Your task to perform on an android device: toggle notifications settings in the gmail app Image 0: 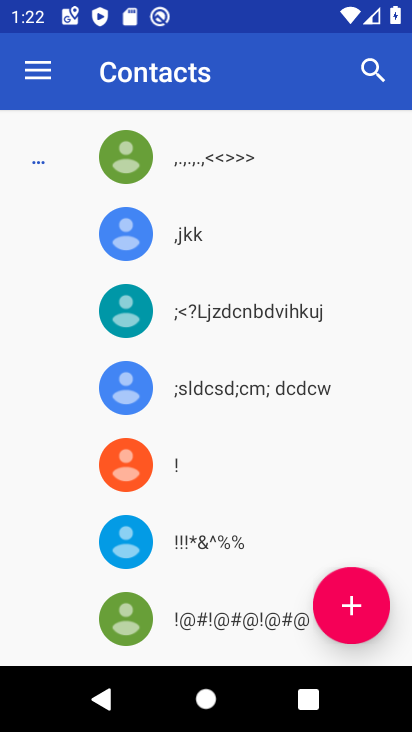
Step 0: press back button
Your task to perform on an android device: toggle notifications settings in the gmail app Image 1: 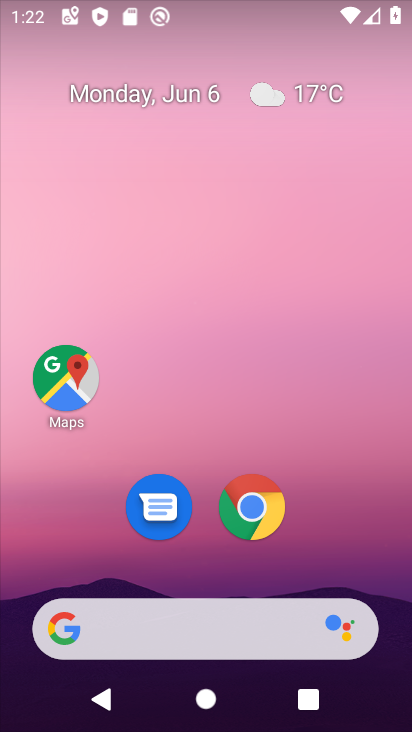
Step 1: drag from (327, 548) to (276, 23)
Your task to perform on an android device: toggle notifications settings in the gmail app Image 2: 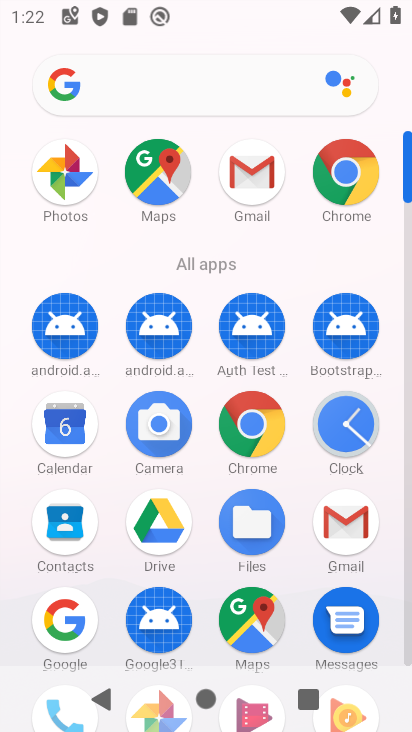
Step 2: click (252, 164)
Your task to perform on an android device: toggle notifications settings in the gmail app Image 3: 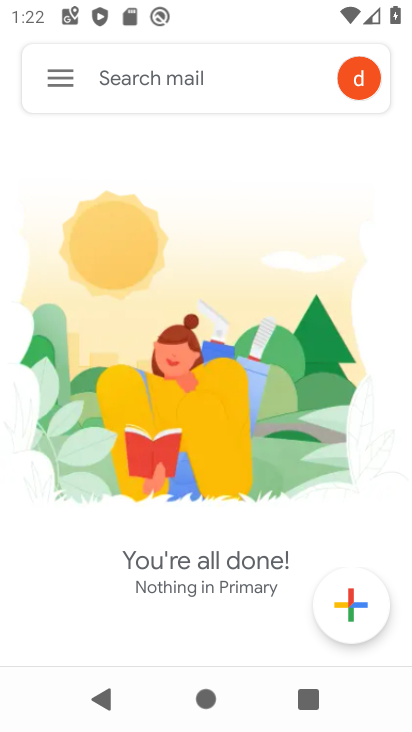
Step 3: click (65, 76)
Your task to perform on an android device: toggle notifications settings in the gmail app Image 4: 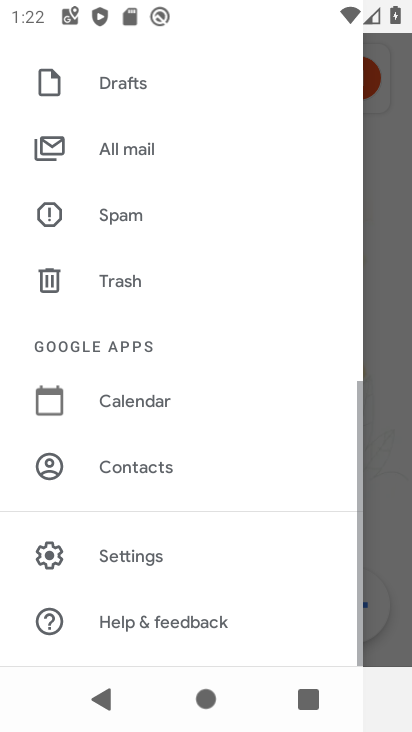
Step 4: drag from (241, 591) to (217, 105)
Your task to perform on an android device: toggle notifications settings in the gmail app Image 5: 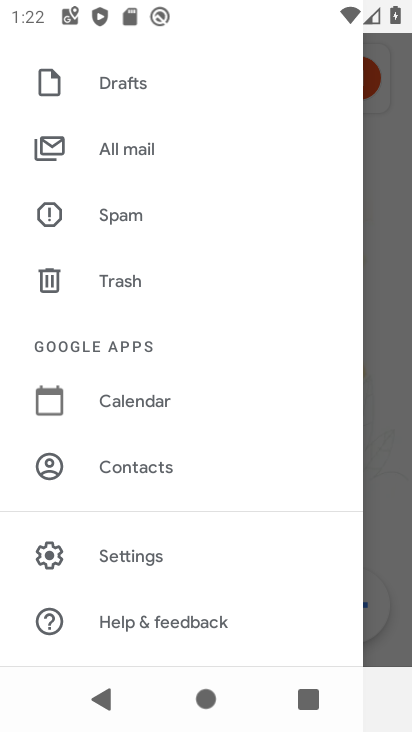
Step 5: click (146, 539)
Your task to perform on an android device: toggle notifications settings in the gmail app Image 6: 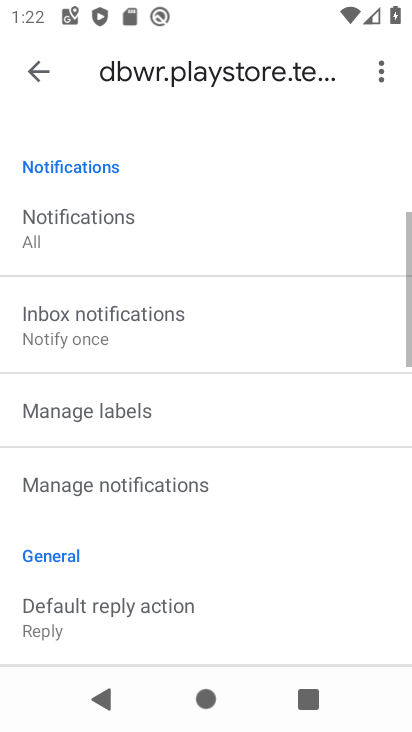
Step 6: drag from (193, 576) to (244, 203)
Your task to perform on an android device: toggle notifications settings in the gmail app Image 7: 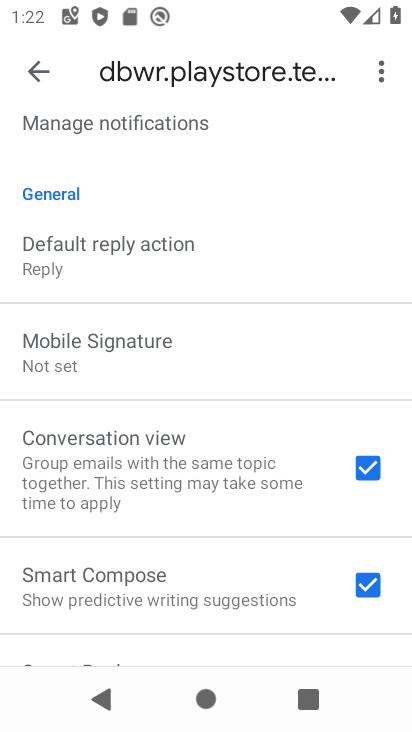
Step 7: click (190, 121)
Your task to perform on an android device: toggle notifications settings in the gmail app Image 8: 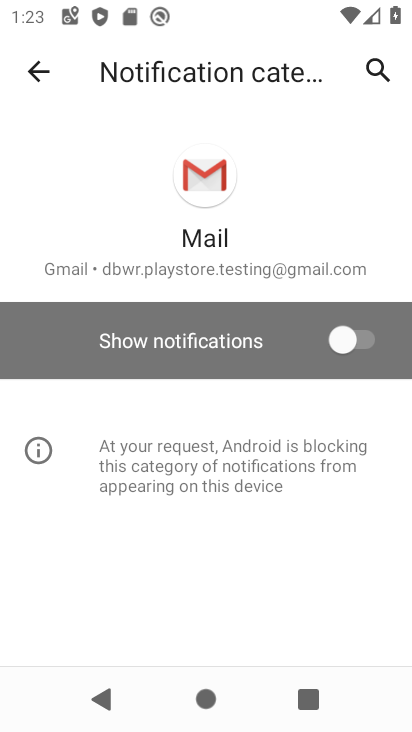
Step 8: task complete